Your task to perform on an android device: Open Maps and search for coffee Image 0: 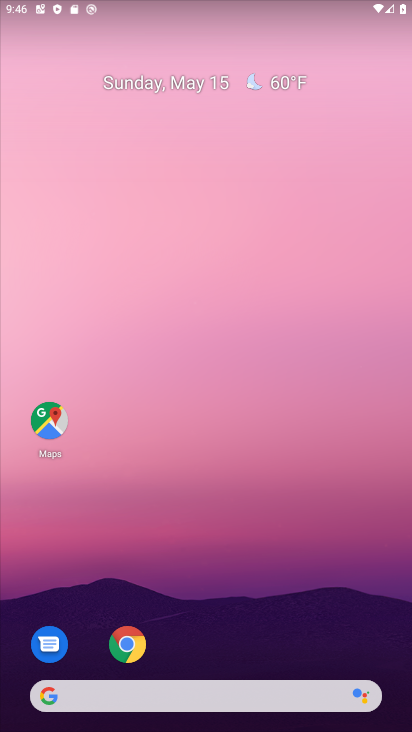
Step 0: drag from (222, 683) to (401, 174)
Your task to perform on an android device: Open Maps and search for coffee Image 1: 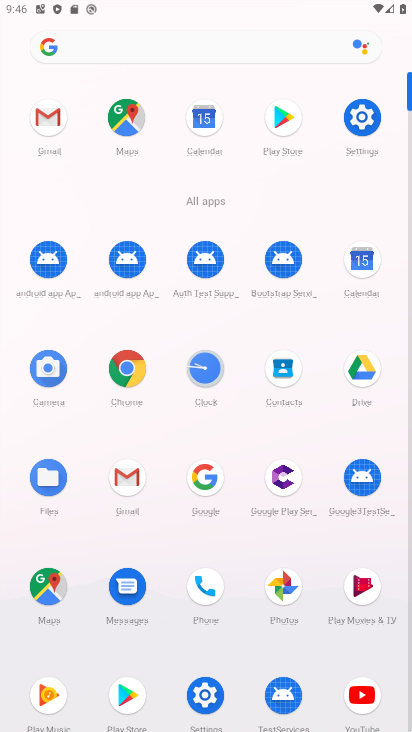
Step 1: click (120, 119)
Your task to perform on an android device: Open Maps and search for coffee Image 2: 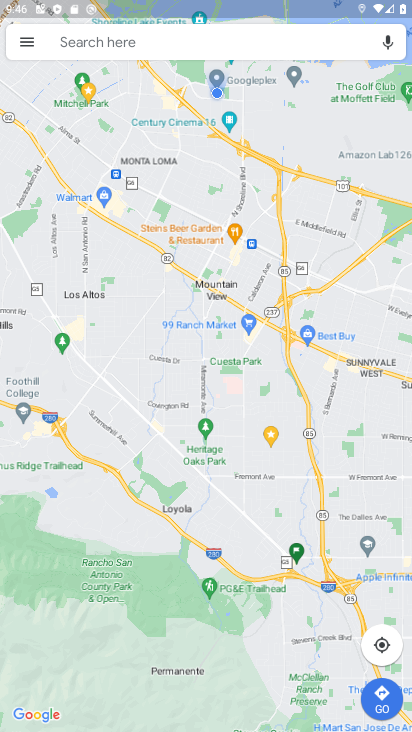
Step 2: click (185, 40)
Your task to perform on an android device: Open Maps and search for coffee Image 3: 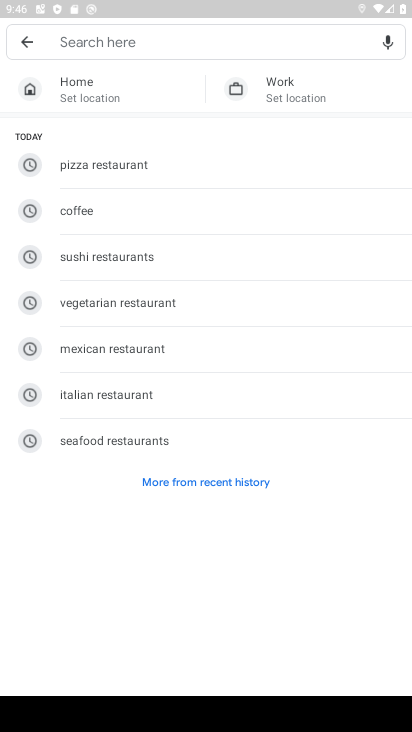
Step 3: click (77, 210)
Your task to perform on an android device: Open Maps and search for coffee Image 4: 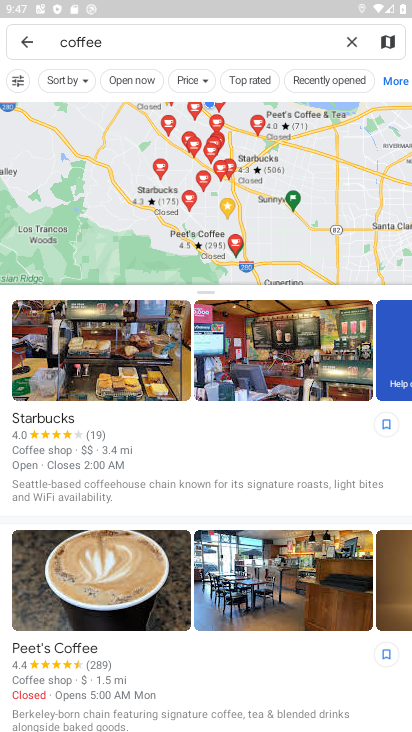
Step 4: task complete